Your task to perform on an android device: allow notifications from all sites in the chrome app Image 0: 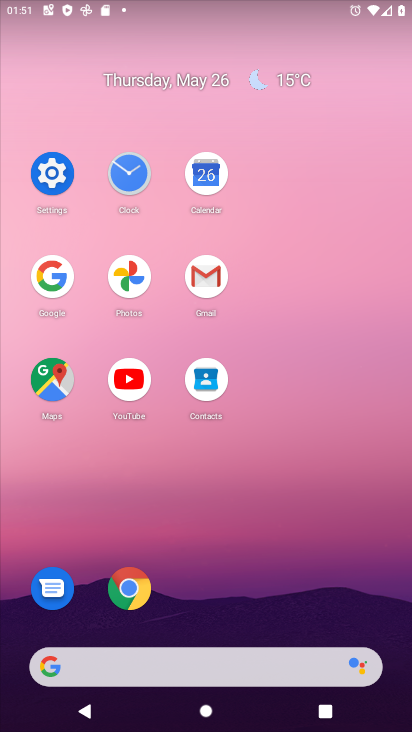
Step 0: click (125, 593)
Your task to perform on an android device: allow notifications from all sites in the chrome app Image 1: 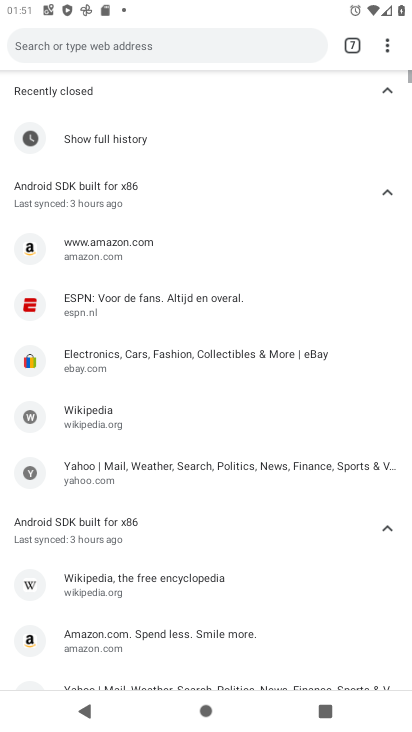
Step 1: click (380, 47)
Your task to perform on an android device: allow notifications from all sites in the chrome app Image 2: 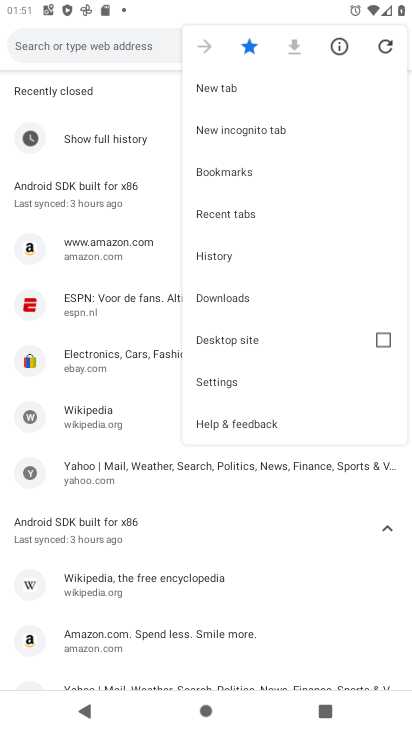
Step 2: click (250, 386)
Your task to perform on an android device: allow notifications from all sites in the chrome app Image 3: 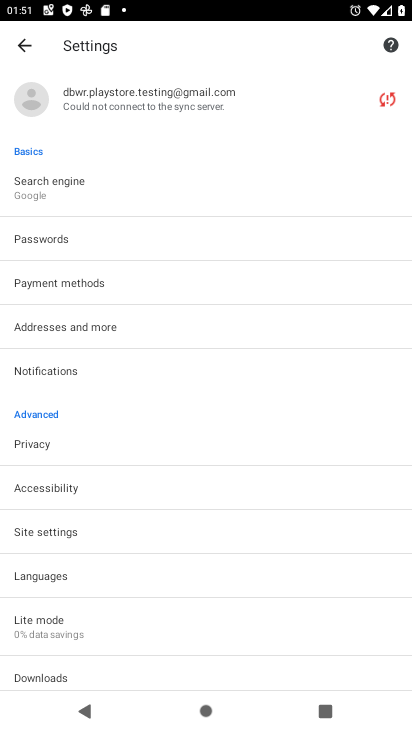
Step 3: drag from (105, 574) to (142, 300)
Your task to perform on an android device: allow notifications from all sites in the chrome app Image 4: 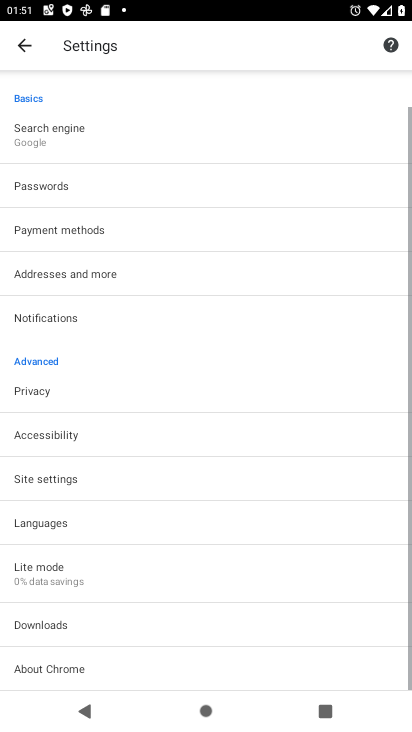
Step 4: click (81, 318)
Your task to perform on an android device: allow notifications from all sites in the chrome app Image 5: 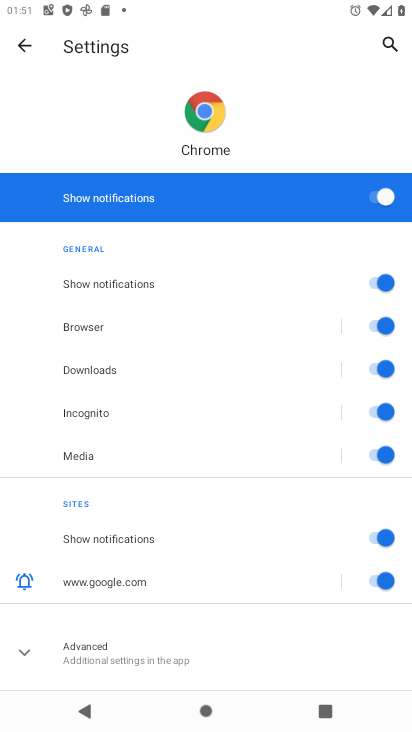
Step 5: task complete